Your task to perform on an android device: check the backup settings in the google photos Image 0: 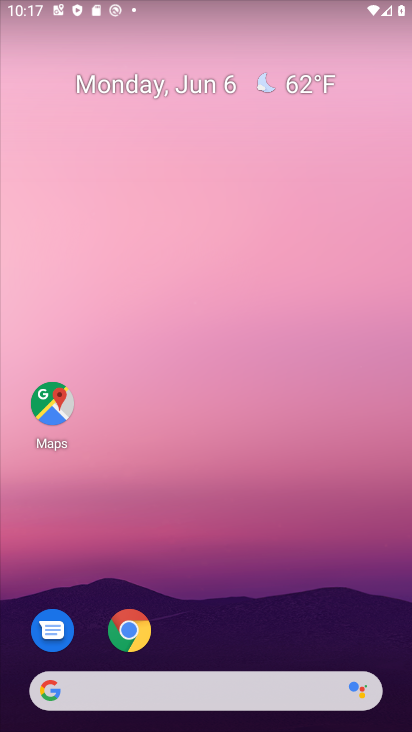
Step 0: drag from (399, 556) to (252, 121)
Your task to perform on an android device: check the backup settings in the google photos Image 1: 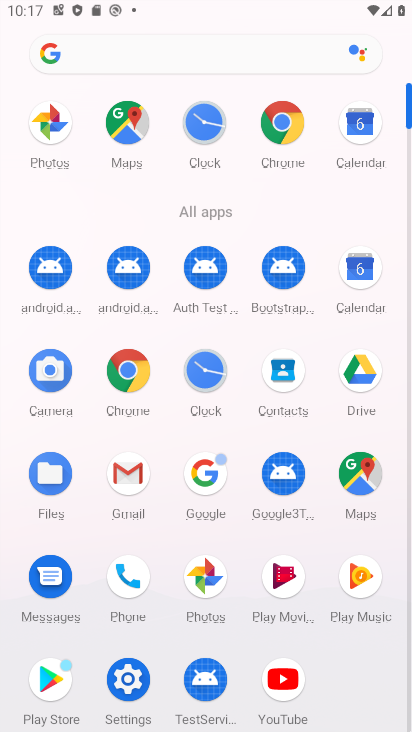
Step 1: click (204, 580)
Your task to perform on an android device: check the backup settings in the google photos Image 2: 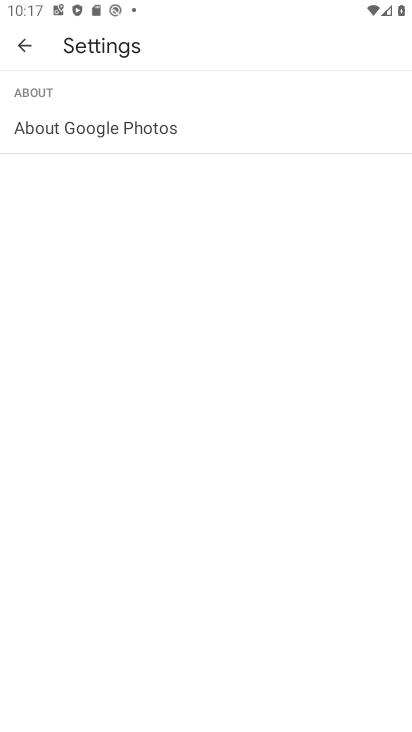
Step 2: click (29, 49)
Your task to perform on an android device: check the backup settings in the google photos Image 3: 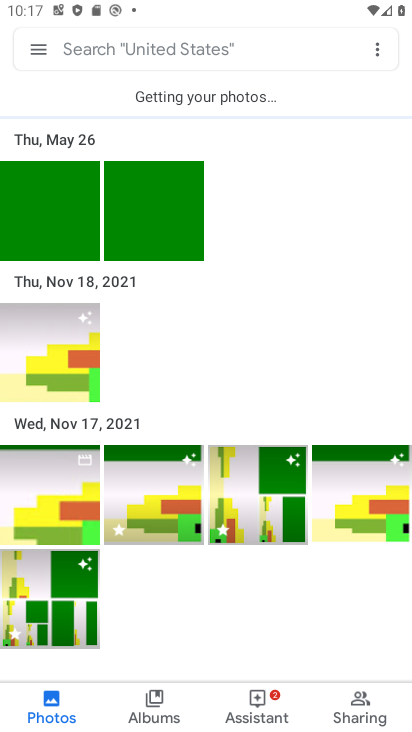
Step 3: click (42, 56)
Your task to perform on an android device: check the backup settings in the google photos Image 4: 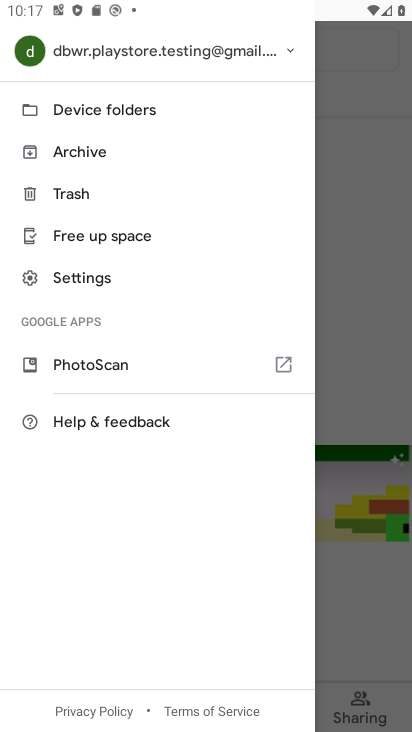
Step 4: click (113, 283)
Your task to perform on an android device: check the backup settings in the google photos Image 5: 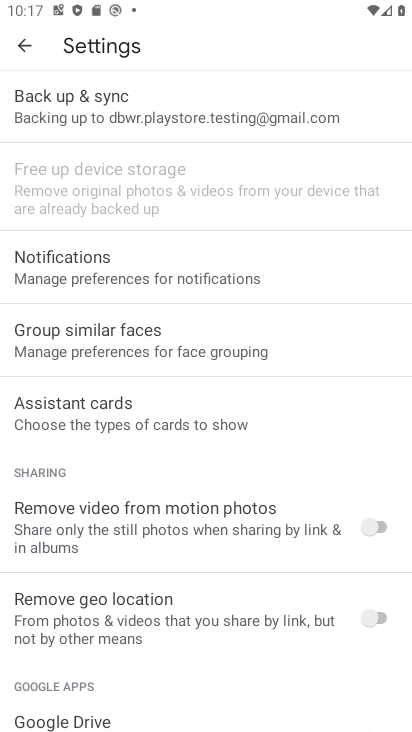
Step 5: click (209, 126)
Your task to perform on an android device: check the backup settings in the google photos Image 6: 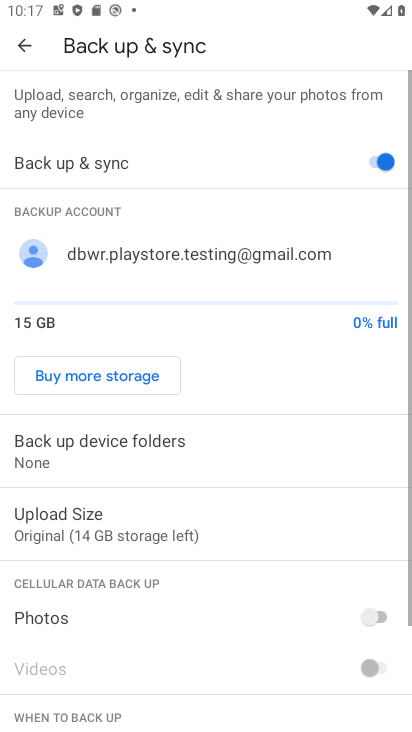
Step 6: task complete